Your task to perform on an android device: Search for bose soundlink mini on bestbuy, select the first entry, add it to the cart, then select checkout. Image 0: 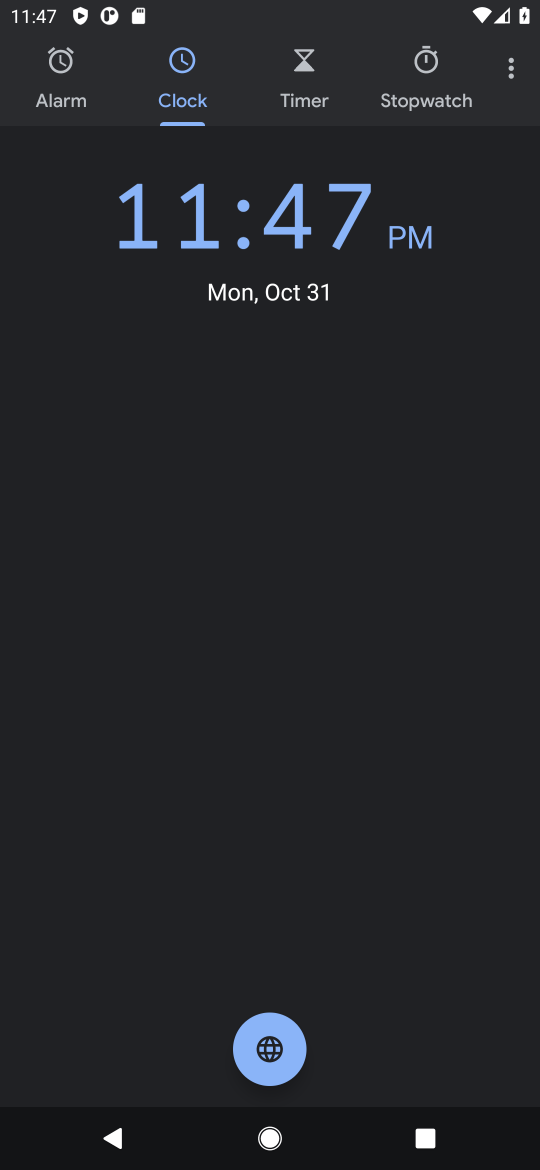
Step 0: click (387, 912)
Your task to perform on an android device: Search for bose soundlink mini on bestbuy, select the first entry, add it to the cart, then select checkout. Image 1: 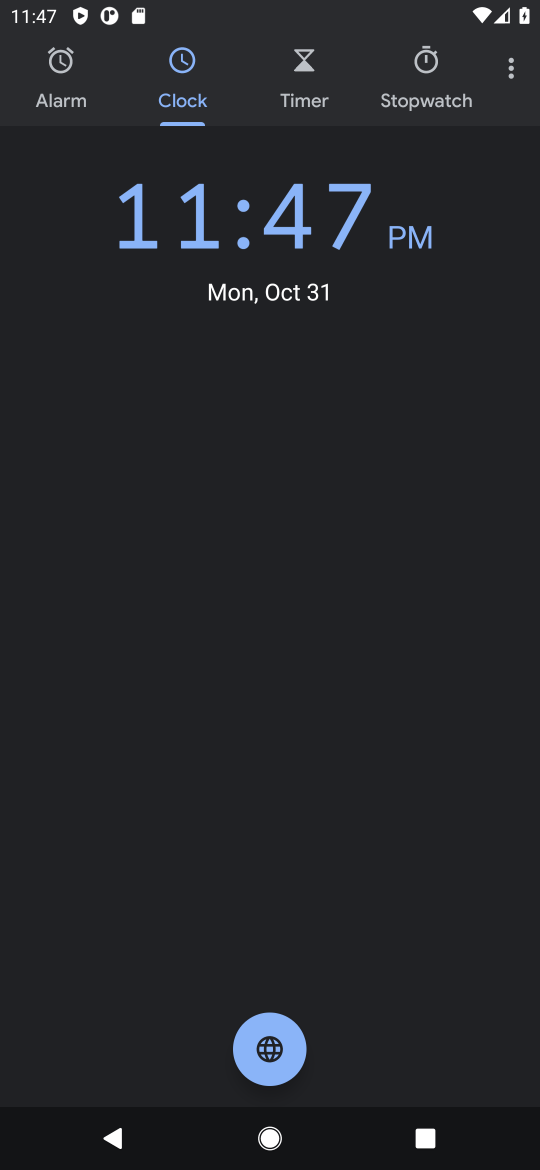
Step 1: press home button
Your task to perform on an android device: Search for bose soundlink mini on bestbuy, select the first entry, add it to the cart, then select checkout. Image 2: 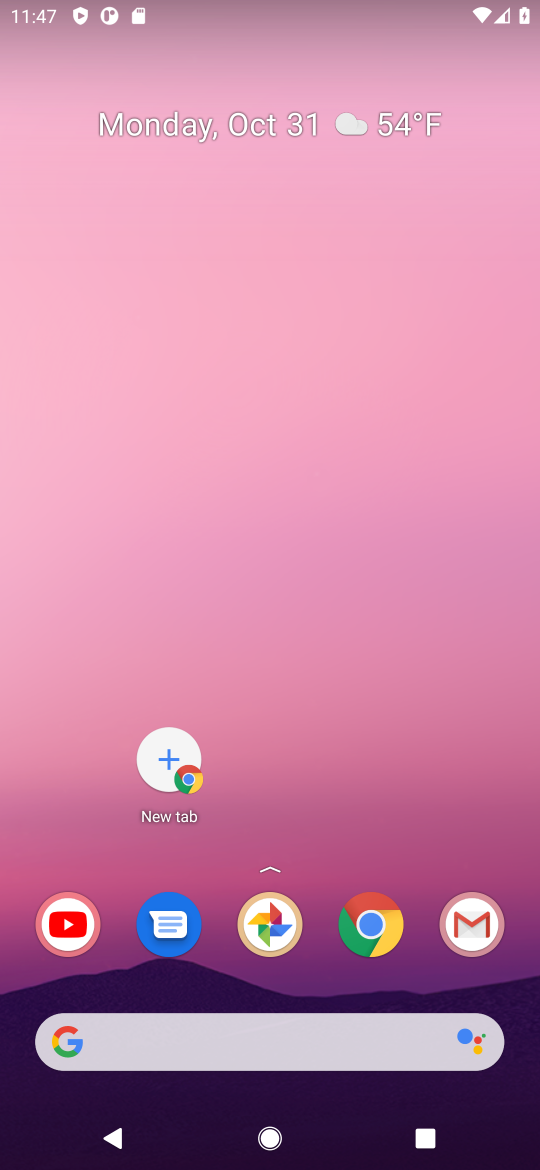
Step 2: click (367, 916)
Your task to perform on an android device: Search for bose soundlink mini on bestbuy, select the first entry, add it to the cart, then select checkout. Image 3: 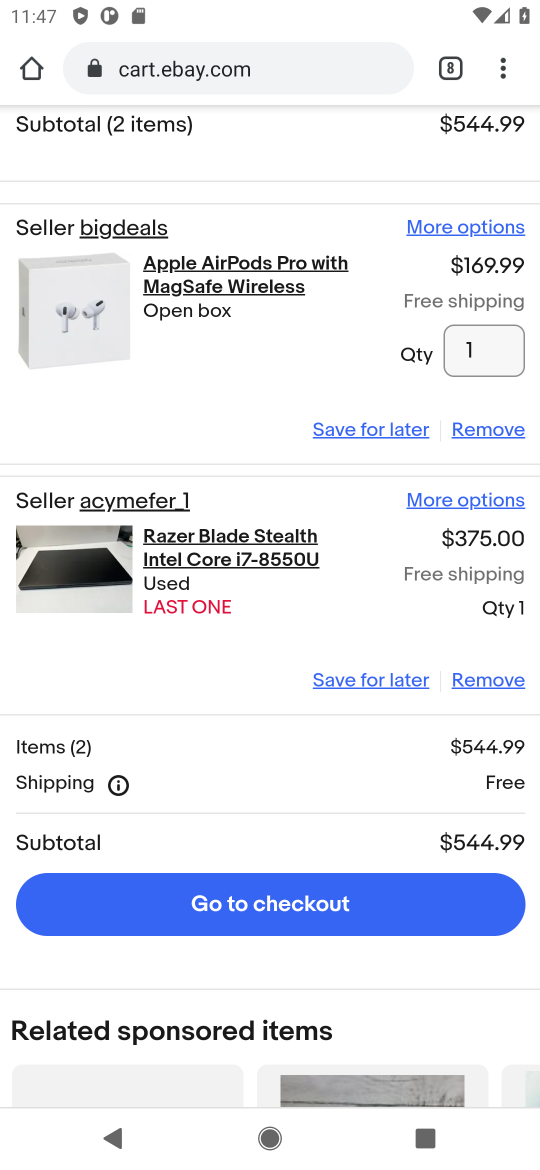
Step 3: press back button
Your task to perform on an android device: Search for bose soundlink mini on bestbuy, select the first entry, add it to the cart, then select checkout. Image 4: 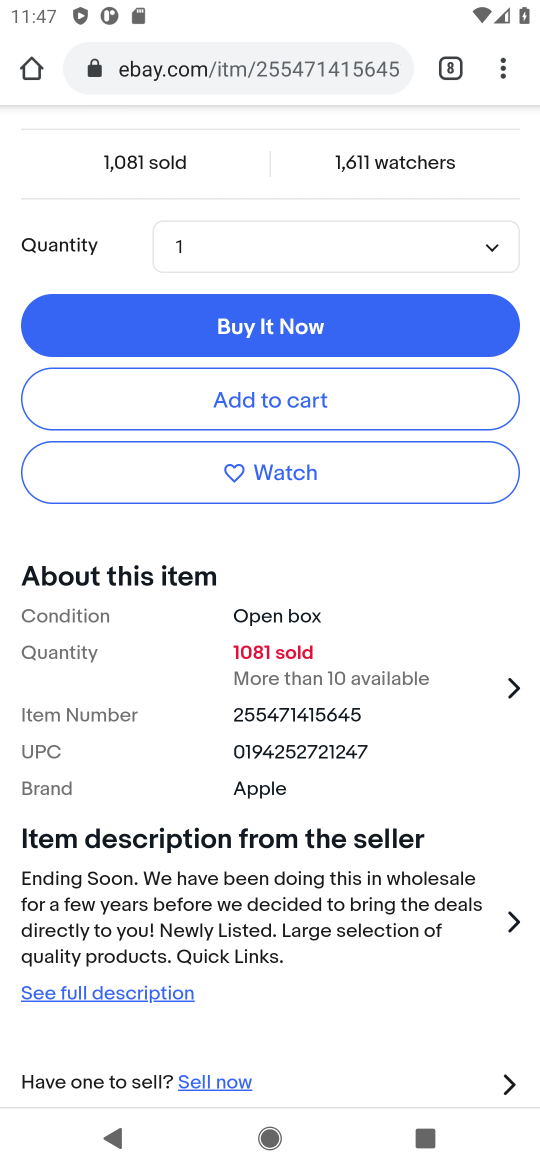
Step 4: click (234, 62)
Your task to perform on an android device: Search for bose soundlink mini on bestbuy, select the first entry, add it to the cart, then select checkout. Image 5: 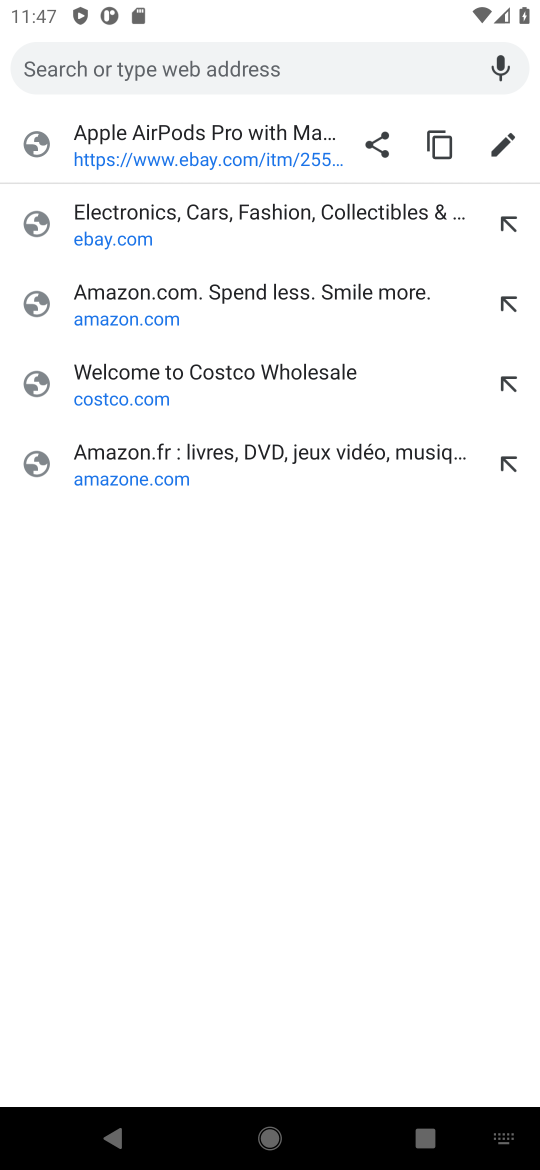
Step 5: type "bestbuy"
Your task to perform on an android device: Search for bose soundlink mini on bestbuy, select the first entry, add it to the cart, then select checkout. Image 6: 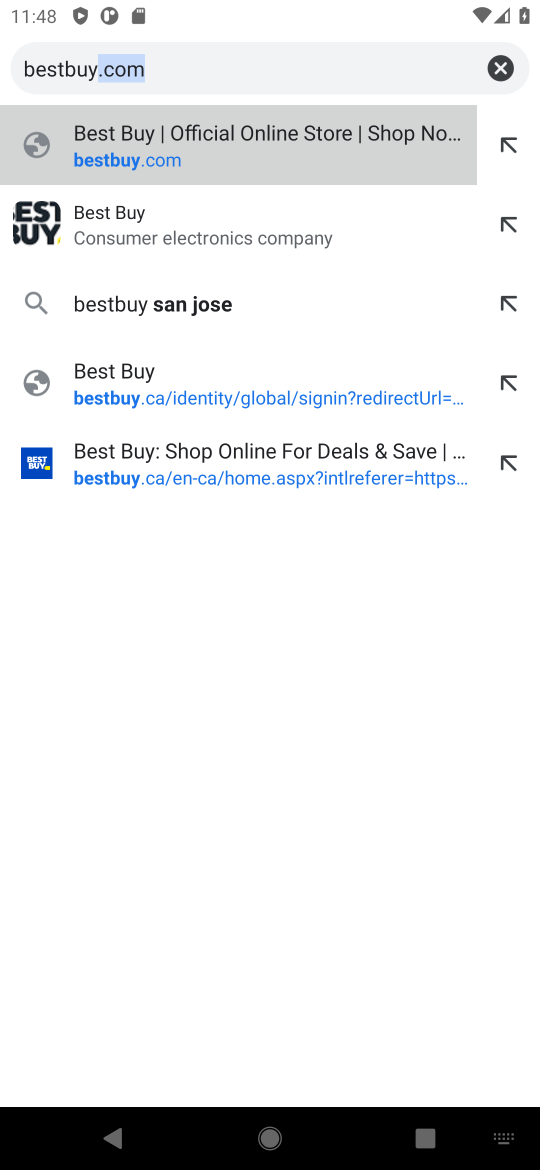
Step 6: click (78, 223)
Your task to perform on an android device: Search for bose soundlink mini on bestbuy, select the first entry, add it to the cart, then select checkout. Image 7: 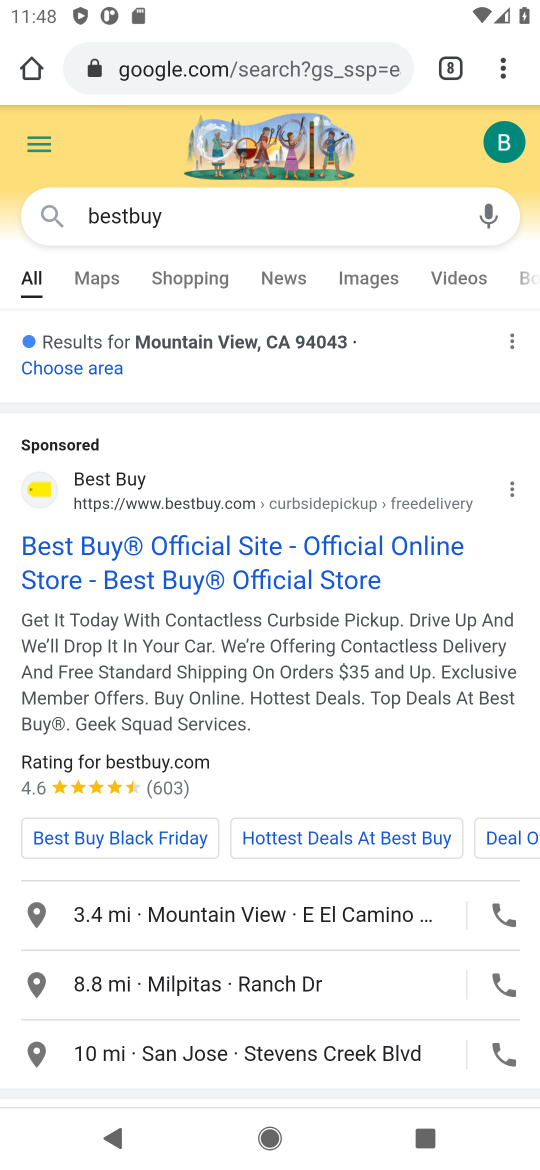
Step 7: click (184, 542)
Your task to perform on an android device: Search for bose soundlink mini on bestbuy, select the first entry, add it to the cart, then select checkout. Image 8: 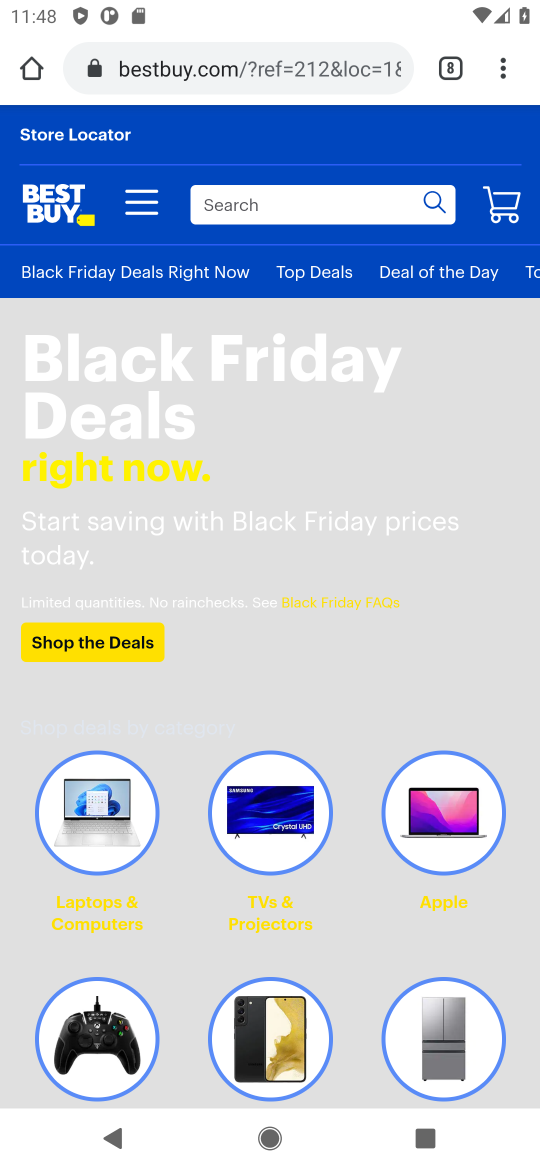
Step 8: click (230, 198)
Your task to perform on an android device: Search for bose soundlink mini on bestbuy, select the first entry, add it to the cart, then select checkout. Image 9: 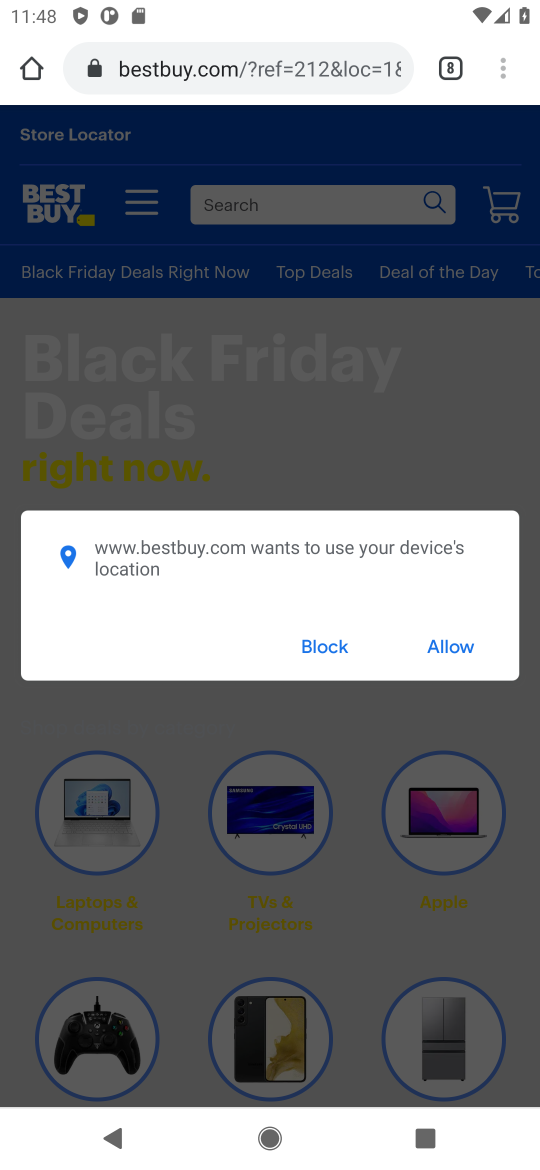
Step 9: type "bose sound"
Your task to perform on an android device: Search for bose soundlink mini on bestbuy, select the first entry, add it to the cart, then select checkout. Image 10: 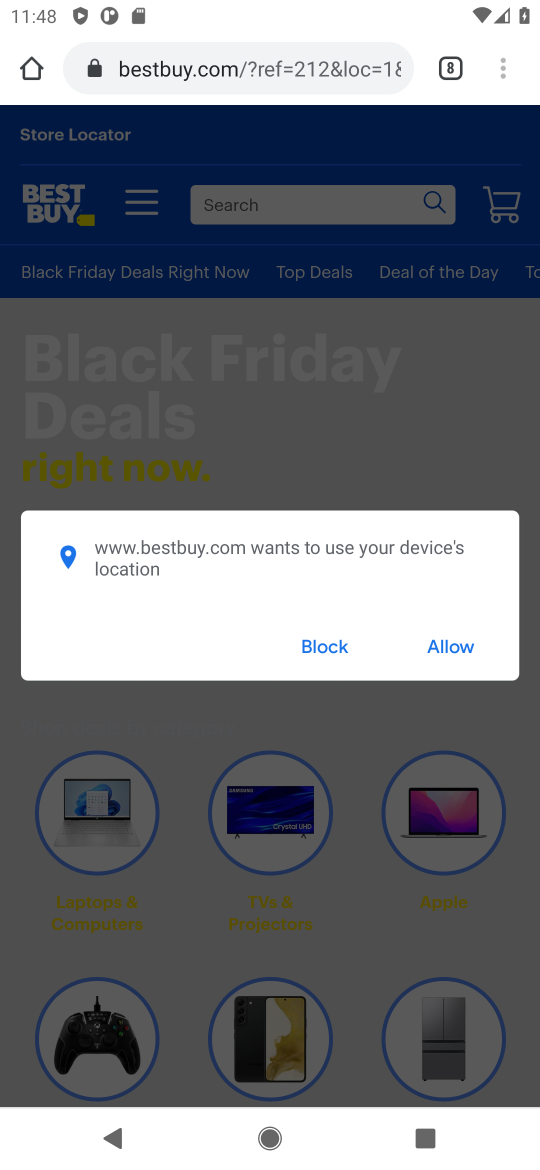
Step 10: click (460, 643)
Your task to perform on an android device: Search for bose soundlink mini on bestbuy, select the first entry, add it to the cart, then select checkout. Image 11: 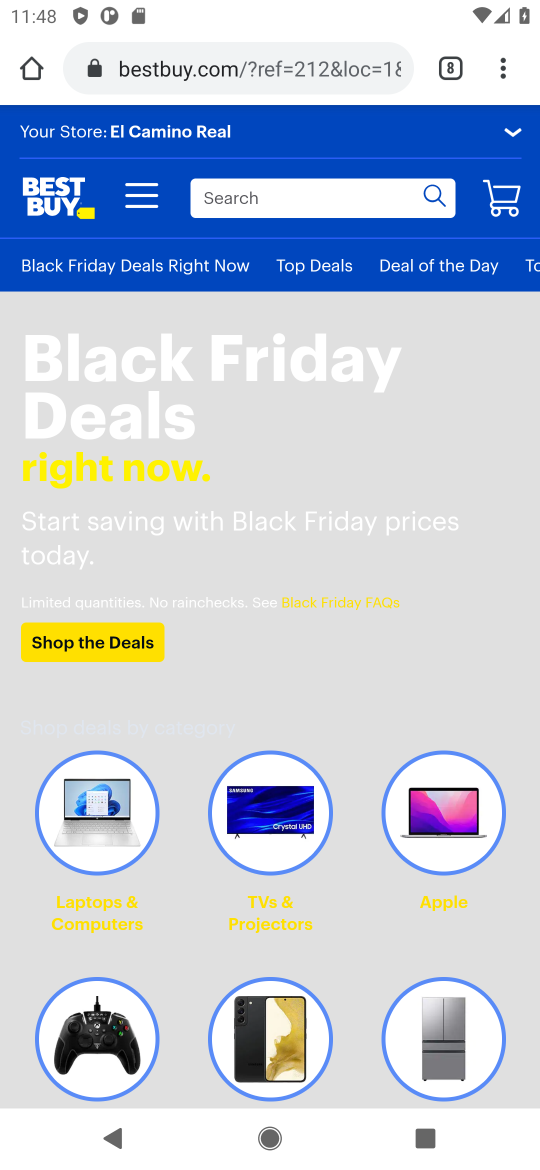
Step 11: type "bose "
Your task to perform on an android device: Search for bose soundlink mini on bestbuy, select the first entry, add it to the cart, then select checkout. Image 12: 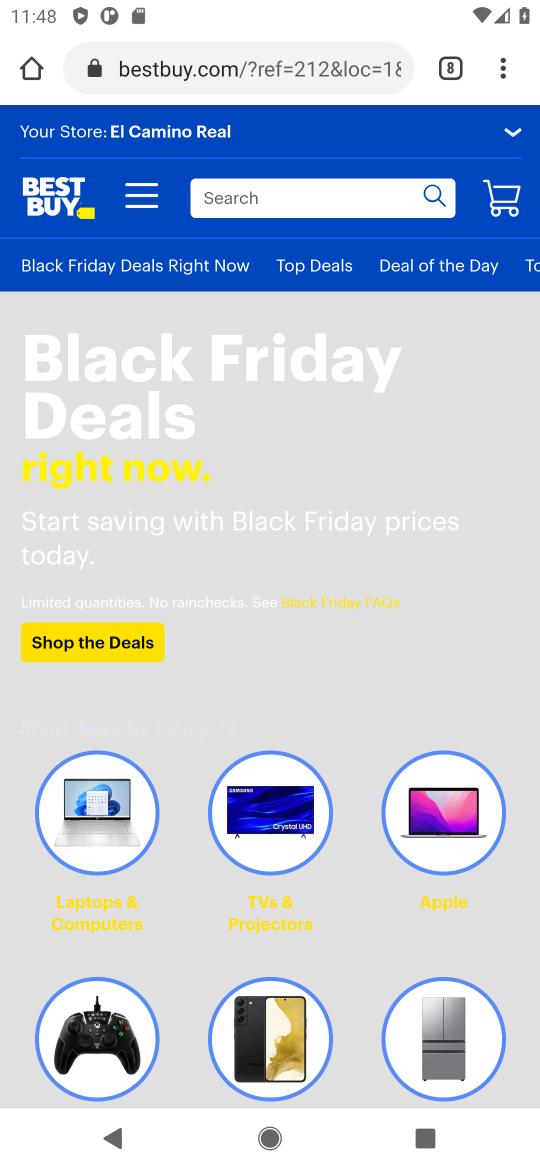
Step 12: click (263, 192)
Your task to perform on an android device: Search for bose soundlink mini on bestbuy, select the first entry, add it to the cart, then select checkout. Image 13: 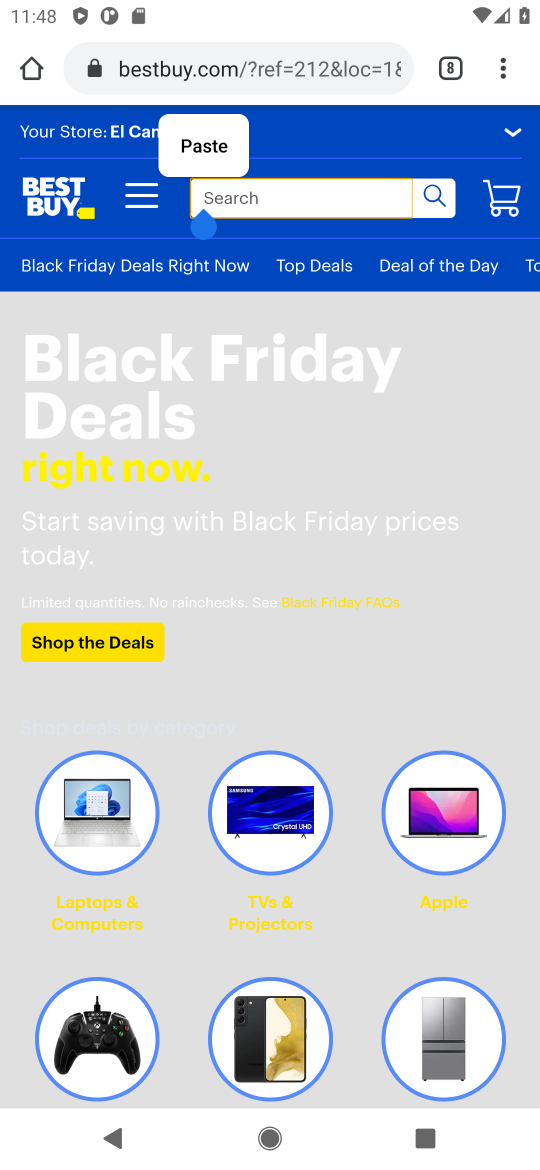
Step 13: type "bose sound like mini"
Your task to perform on an android device: Search for bose soundlink mini on bestbuy, select the first entry, add it to the cart, then select checkout. Image 14: 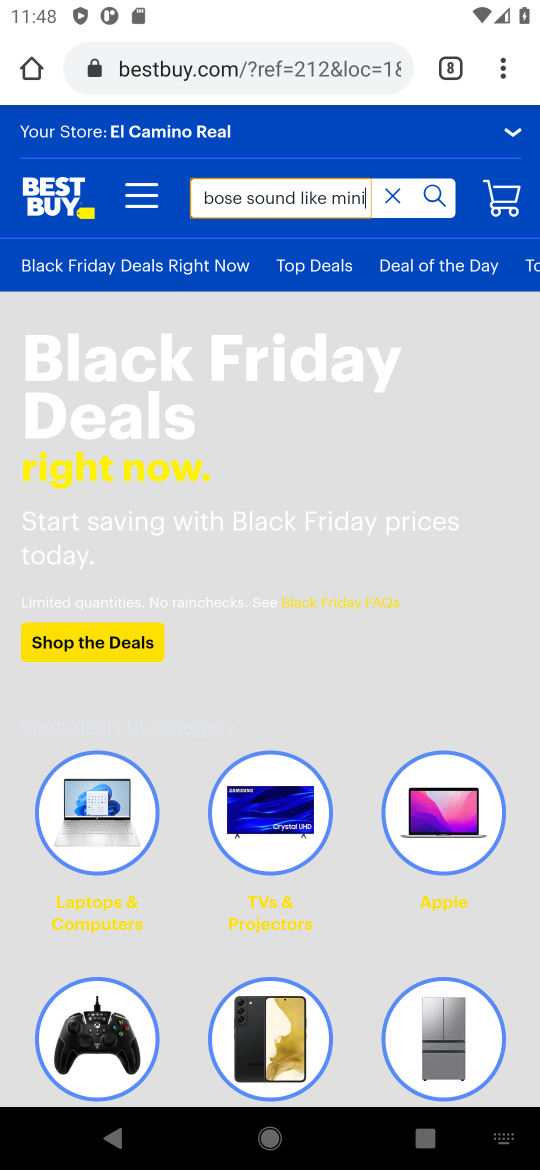
Step 14: click (435, 189)
Your task to perform on an android device: Search for bose soundlink mini on bestbuy, select the first entry, add it to the cart, then select checkout. Image 15: 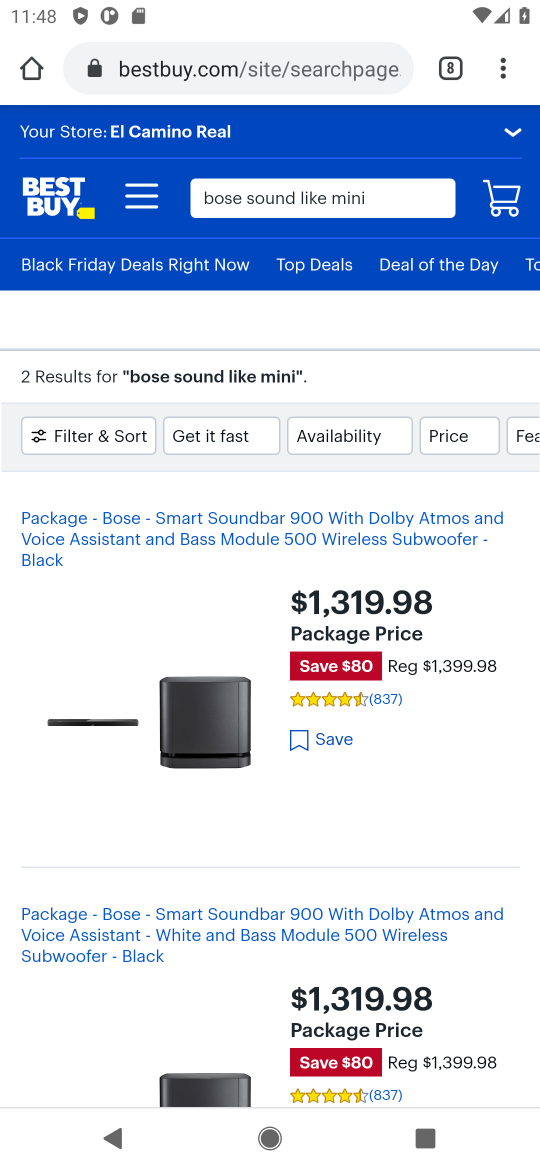
Step 15: drag from (156, 874) to (156, 564)
Your task to perform on an android device: Search for bose soundlink mini on bestbuy, select the first entry, add it to the cart, then select checkout. Image 16: 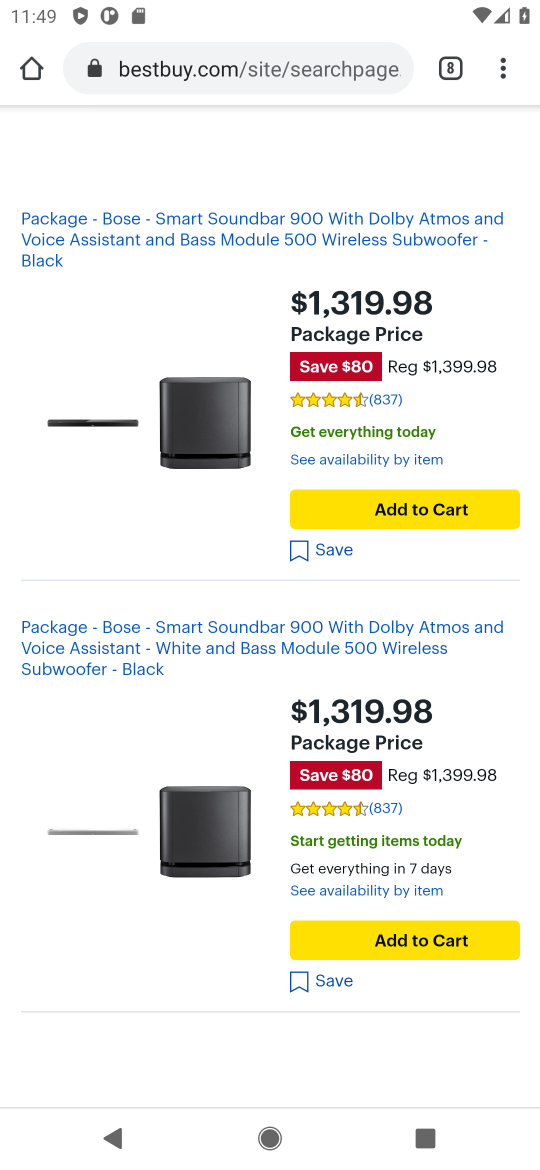
Step 16: drag from (168, 916) to (199, 310)
Your task to perform on an android device: Search for bose soundlink mini on bestbuy, select the first entry, add it to the cart, then select checkout. Image 17: 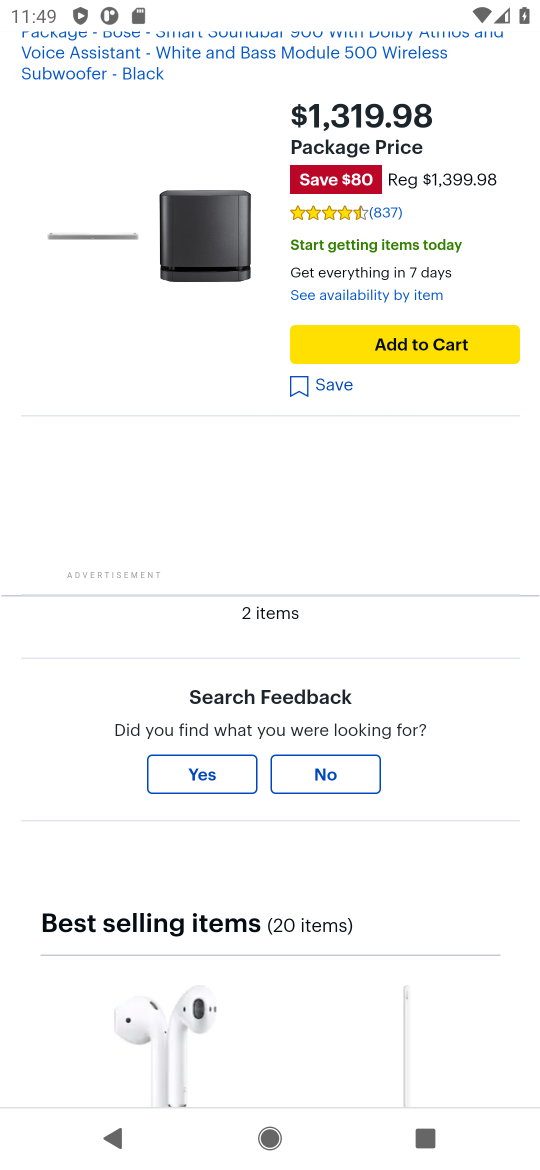
Step 17: click (377, 337)
Your task to perform on an android device: Search for bose soundlink mini on bestbuy, select the first entry, add it to the cart, then select checkout. Image 18: 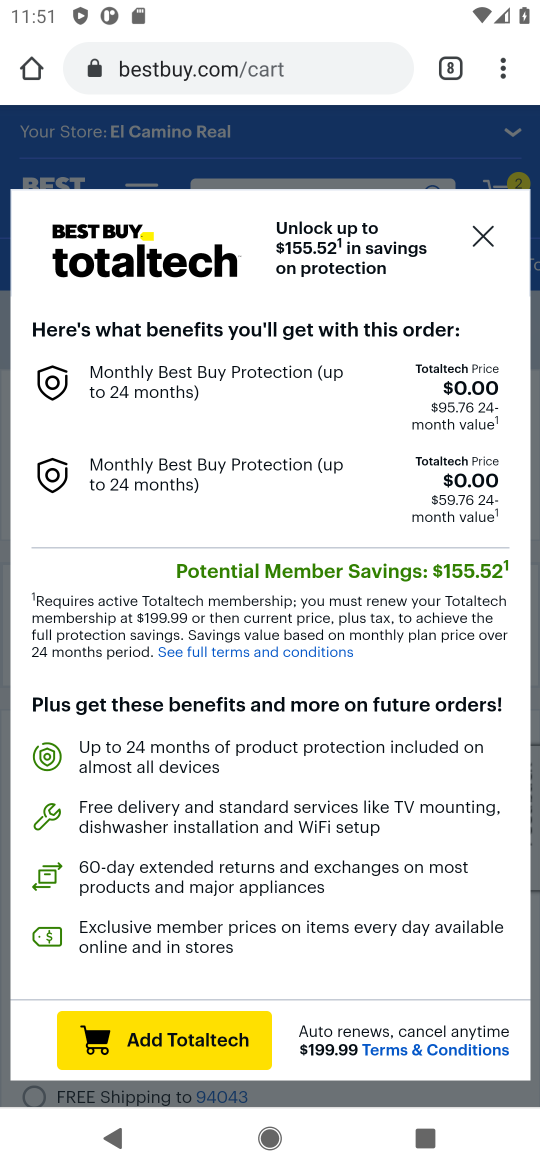
Step 18: click (480, 223)
Your task to perform on an android device: Search for bose soundlink mini on bestbuy, select the first entry, add it to the cart, then select checkout. Image 19: 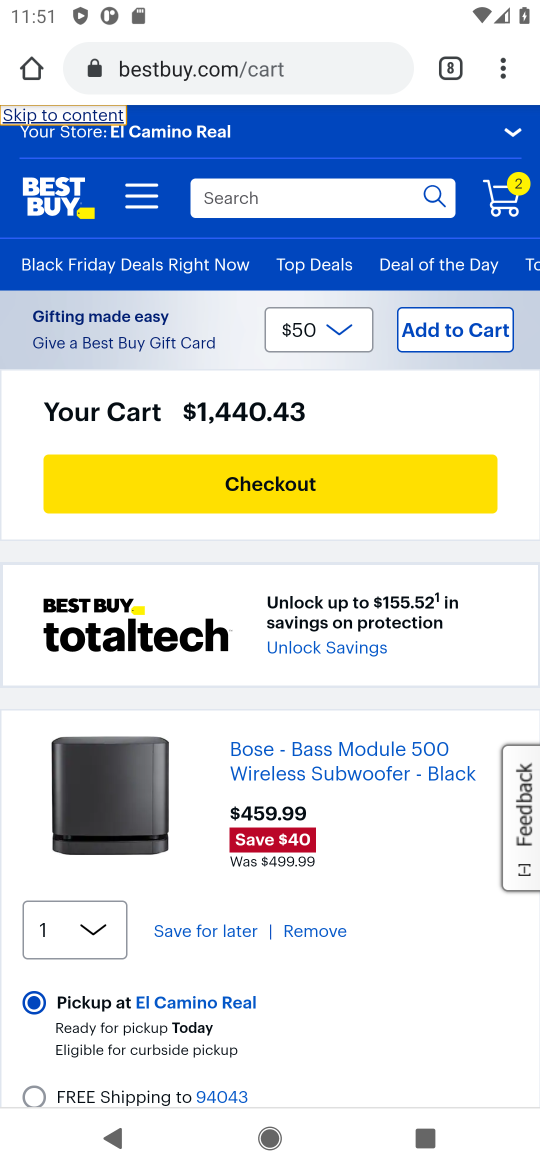
Step 19: click (254, 480)
Your task to perform on an android device: Search for bose soundlink mini on bestbuy, select the first entry, add it to the cart, then select checkout. Image 20: 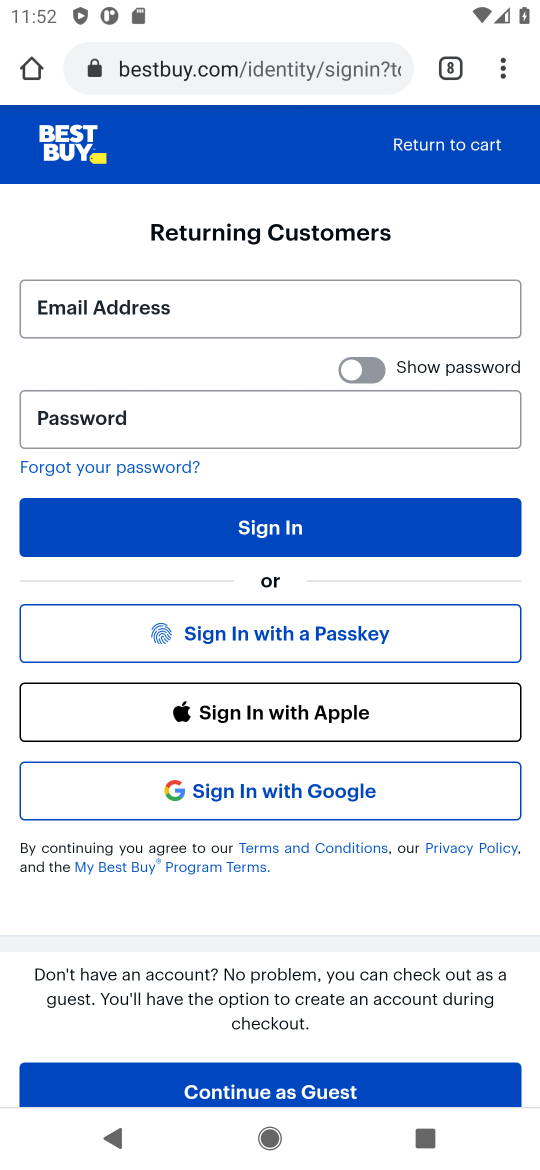
Step 20: task complete